Your task to perform on an android device: What is the recent news? Image 0: 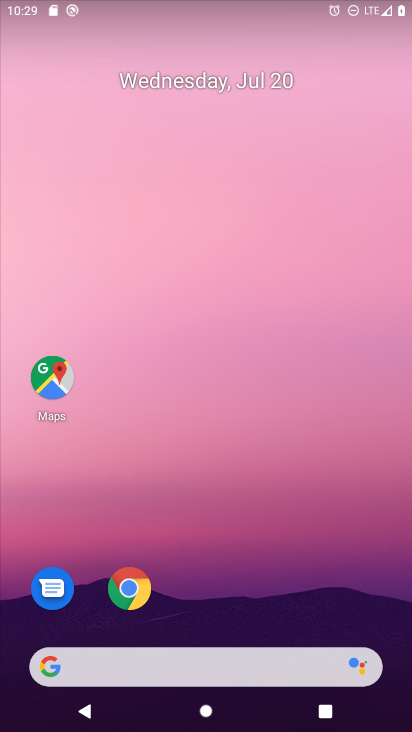
Step 0: click (146, 681)
Your task to perform on an android device: What is the recent news? Image 1: 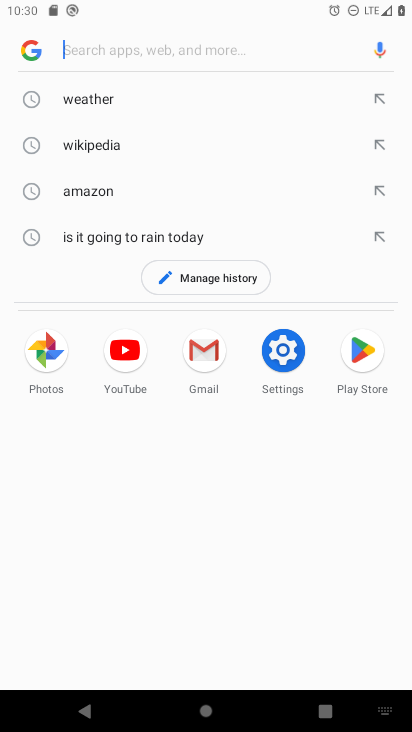
Step 1: click (19, 53)
Your task to perform on an android device: What is the recent news? Image 2: 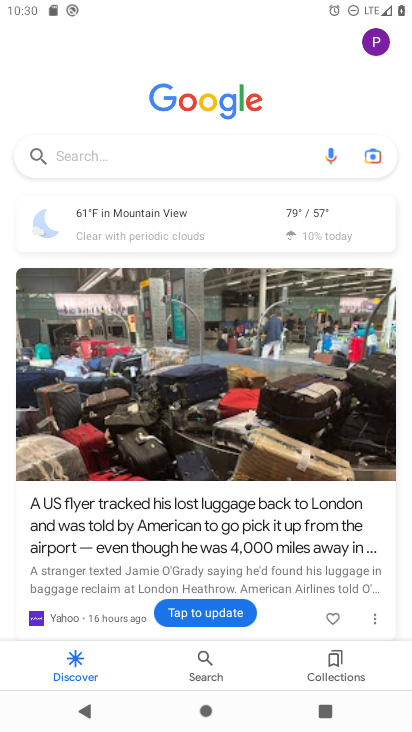
Step 2: task complete